Your task to perform on an android device: open chrome and create a bookmark for the current page Image 0: 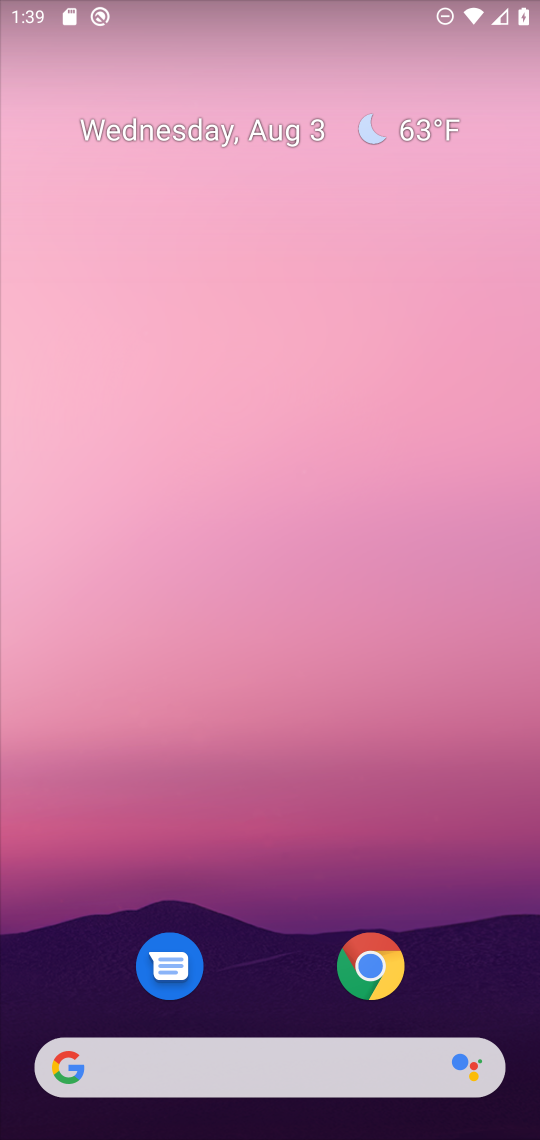
Step 0: click (375, 972)
Your task to perform on an android device: open chrome and create a bookmark for the current page Image 1: 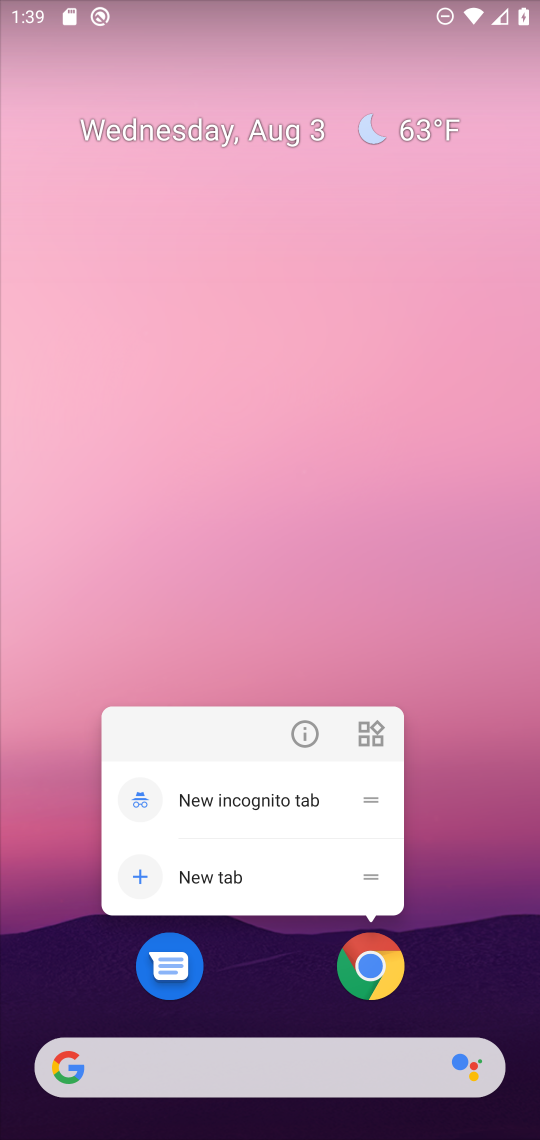
Step 1: click (389, 961)
Your task to perform on an android device: open chrome and create a bookmark for the current page Image 2: 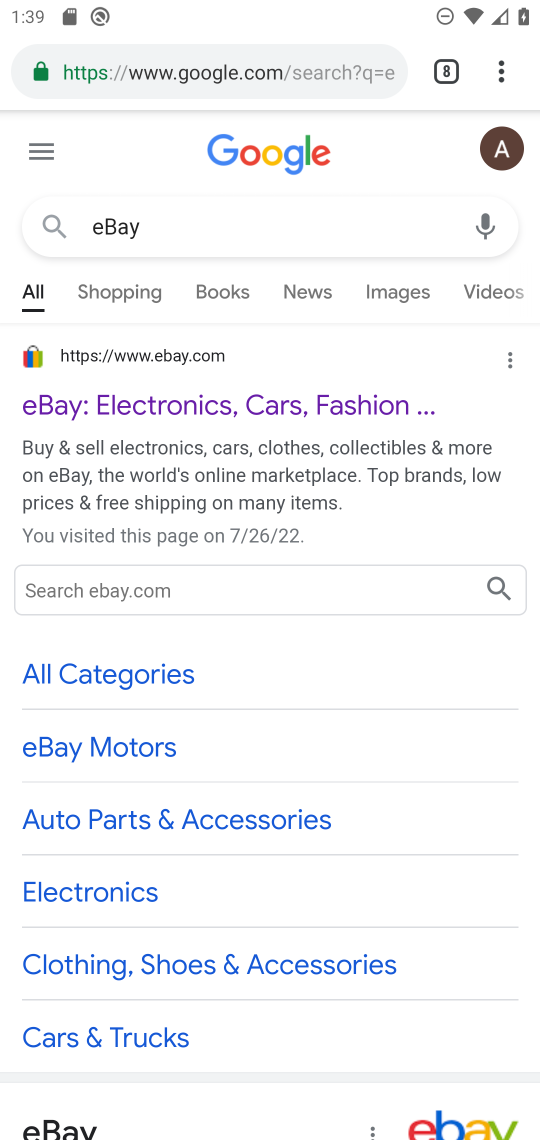
Step 2: click (498, 61)
Your task to perform on an android device: open chrome and create a bookmark for the current page Image 3: 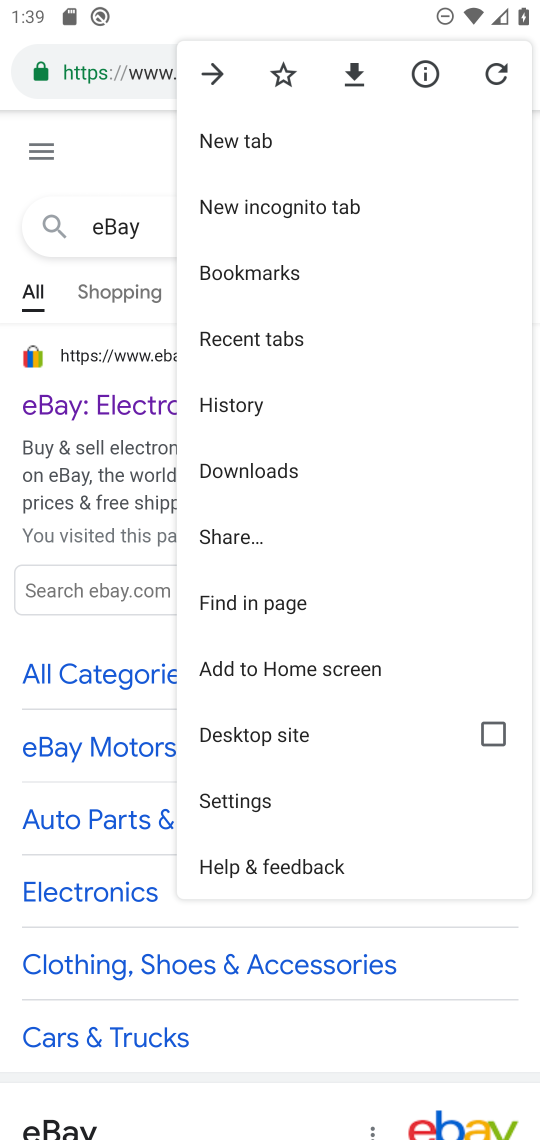
Step 3: click (271, 79)
Your task to perform on an android device: open chrome and create a bookmark for the current page Image 4: 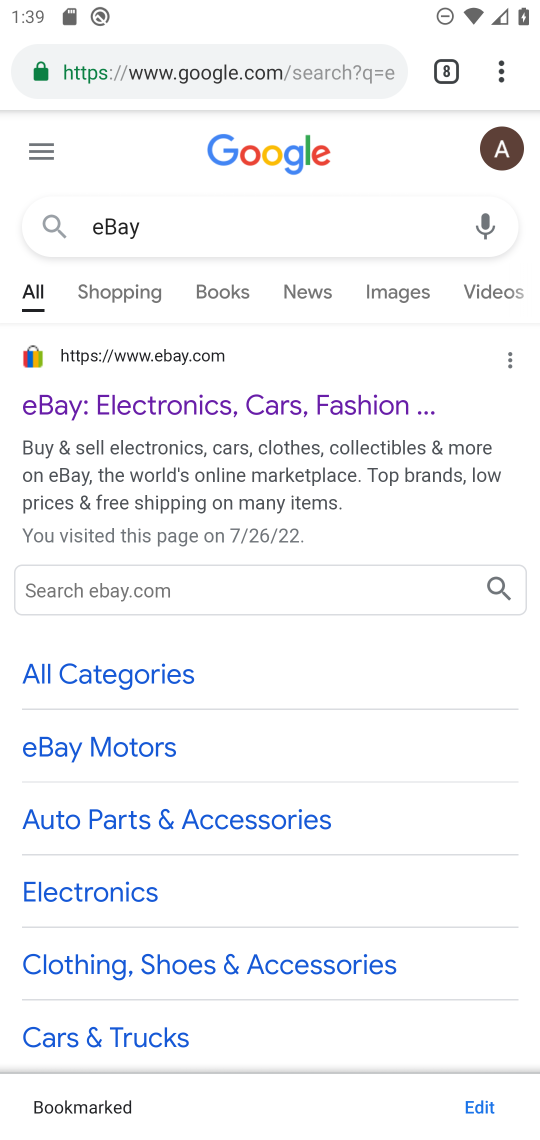
Step 4: task complete